Your task to perform on an android device: find photos in the google photos app Image 0: 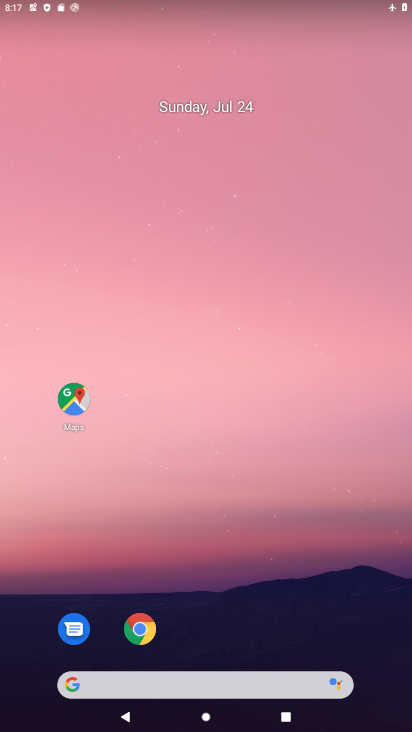
Step 0: drag from (236, 730) to (200, 183)
Your task to perform on an android device: find photos in the google photos app Image 1: 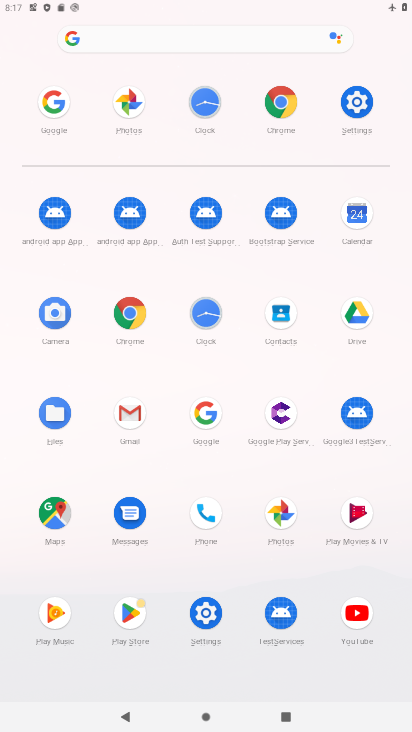
Step 1: click (269, 535)
Your task to perform on an android device: find photos in the google photos app Image 2: 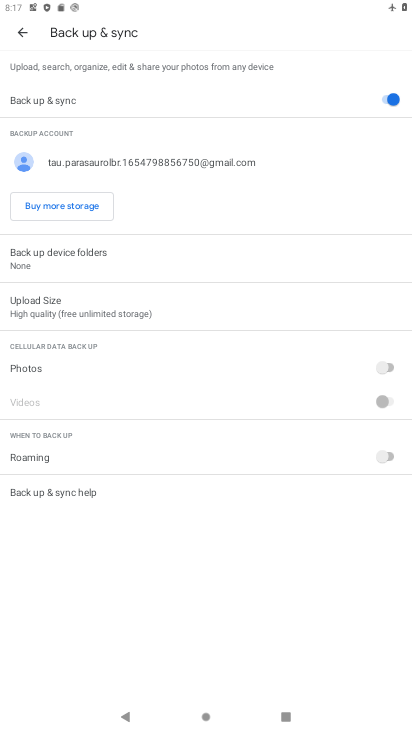
Step 2: click (19, 36)
Your task to perform on an android device: find photos in the google photos app Image 3: 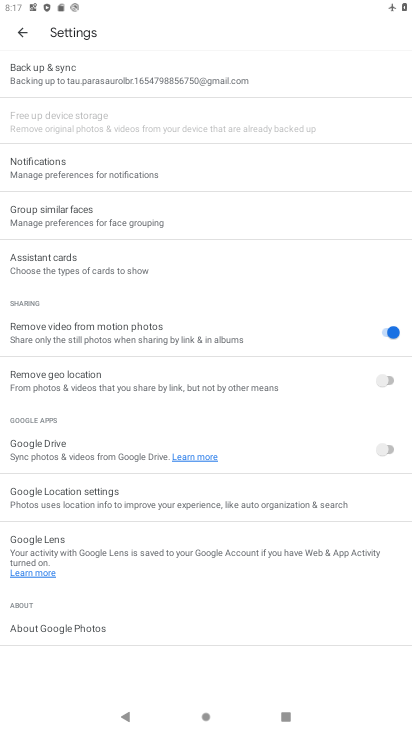
Step 3: click (19, 36)
Your task to perform on an android device: find photos in the google photos app Image 4: 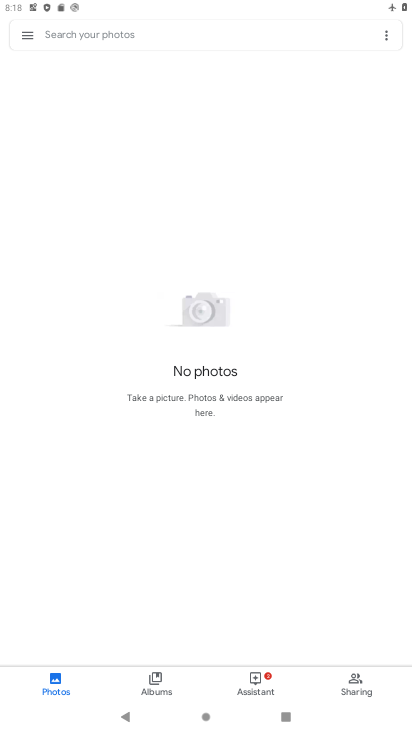
Step 4: task complete